Your task to perform on an android device: add a contact Image 0: 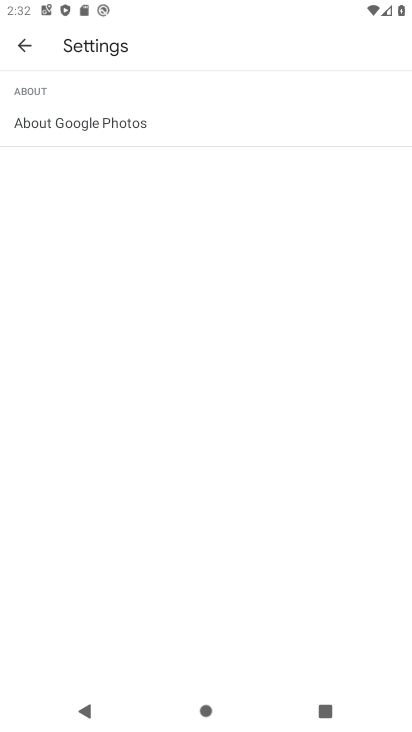
Step 0: click (163, 664)
Your task to perform on an android device: add a contact Image 1: 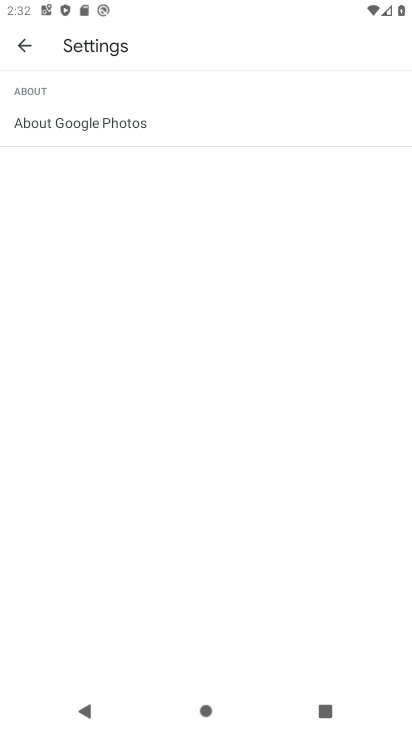
Step 1: press home button
Your task to perform on an android device: add a contact Image 2: 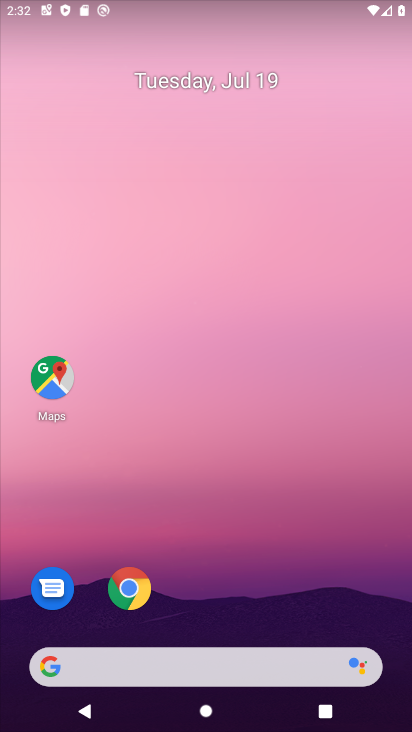
Step 2: drag from (214, 510) to (199, 221)
Your task to perform on an android device: add a contact Image 3: 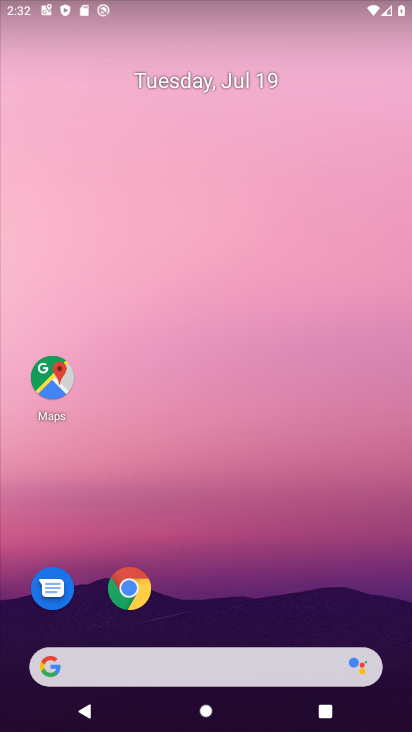
Step 3: drag from (178, 618) to (171, 282)
Your task to perform on an android device: add a contact Image 4: 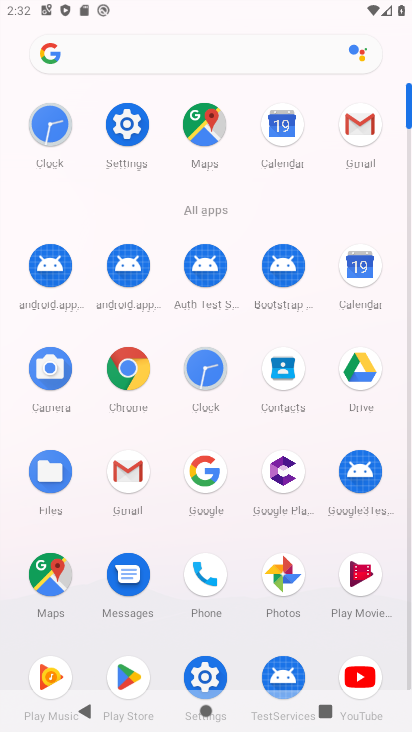
Step 4: click (285, 387)
Your task to perform on an android device: add a contact Image 5: 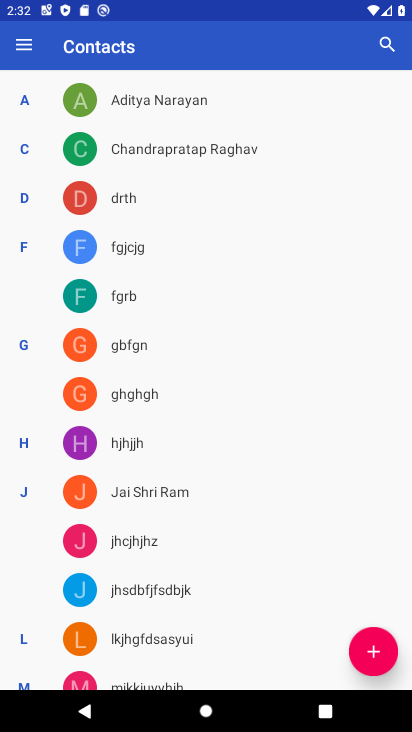
Step 5: click (366, 643)
Your task to perform on an android device: add a contact Image 6: 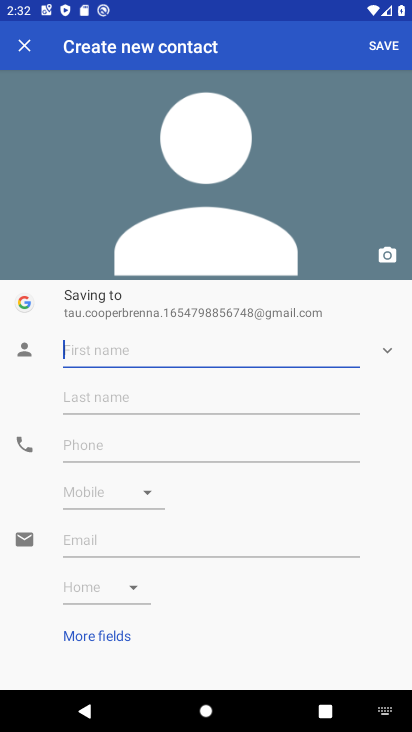
Step 6: type "Shanti"
Your task to perform on an android device: add a contact Image 7: 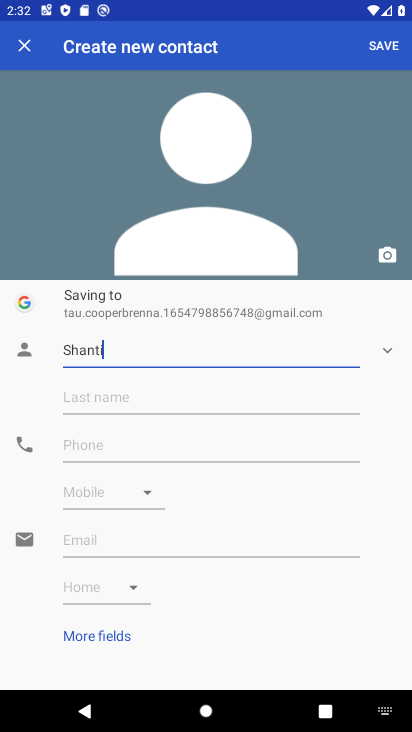
Step 7: click (246, 405)
Your task to perform on an android device: add a contact Image 8: 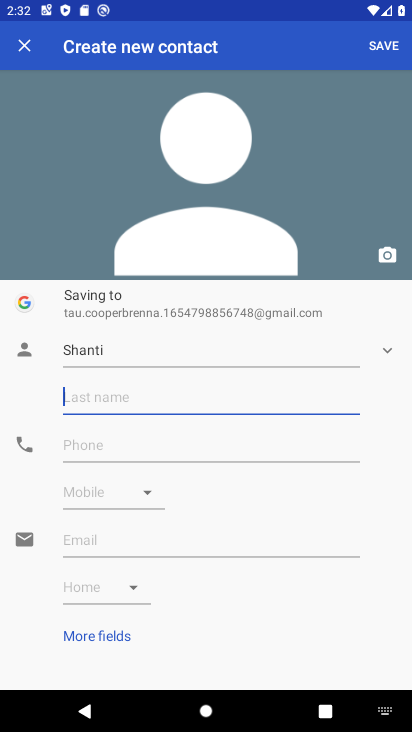
Step 8: type "Suman"
Your task to perform on an android device: add a contact Image 9: 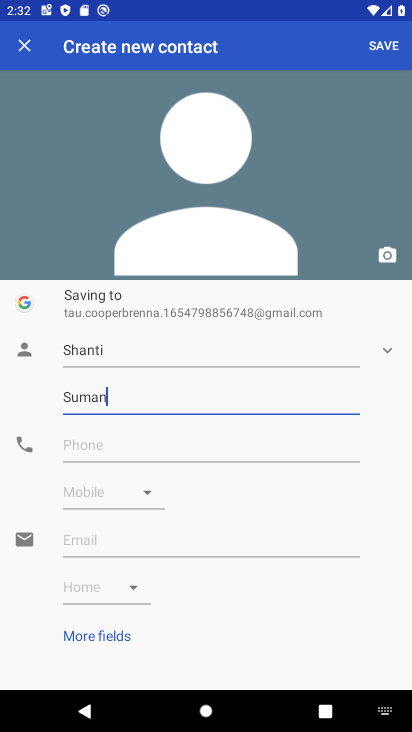
Step 9: click (104, 446)
Your task to perform on an android device: add a contact Image 10: 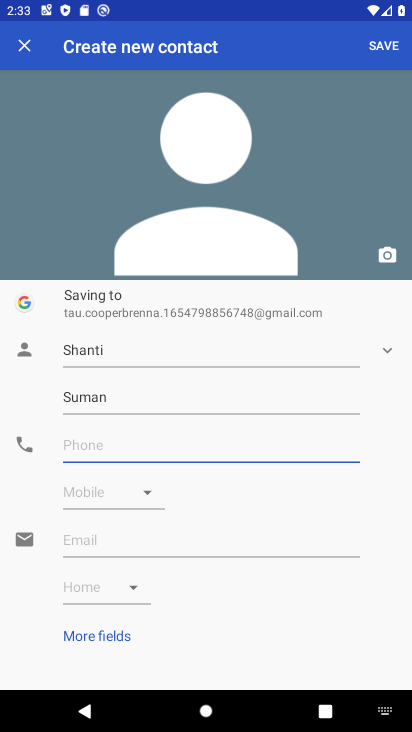
Step 10: type "8008800890"
Your task to perform on an android device: add a contact Image 11: 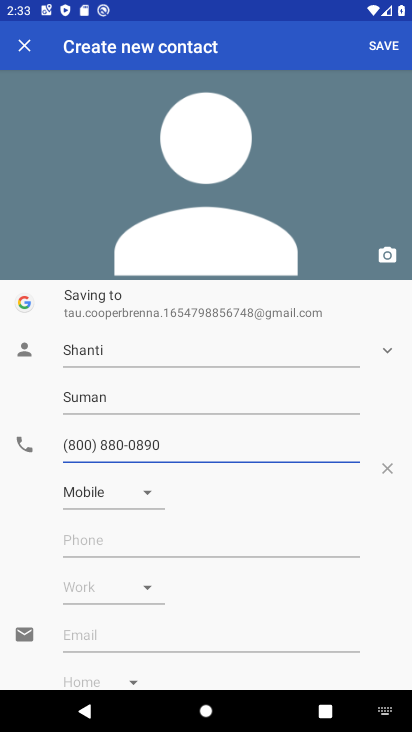
Step 11: click (379, 36)
Your task to perform on an android device: add a contact Image 12: 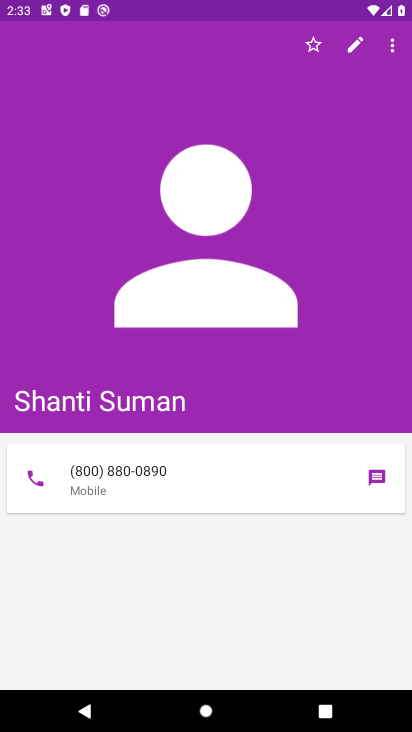
Step 12: task complete